Your task to perform on an android device: find photos in the google photos app Image 0: 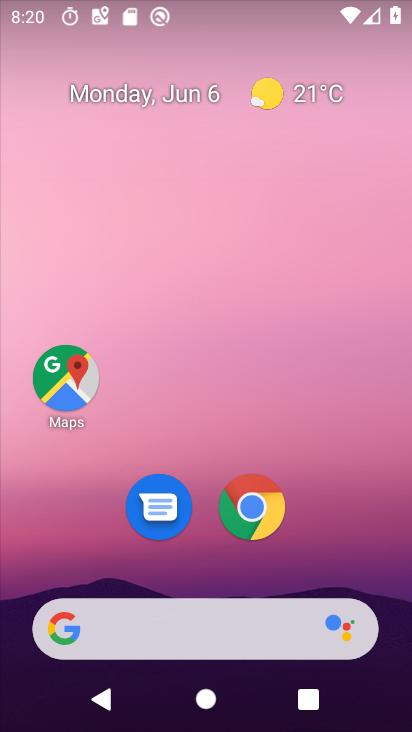
Step 0: drag from (334, 562) to (334, 134)
Your task to perform on an android device: find photos in the google photos app Image 1: 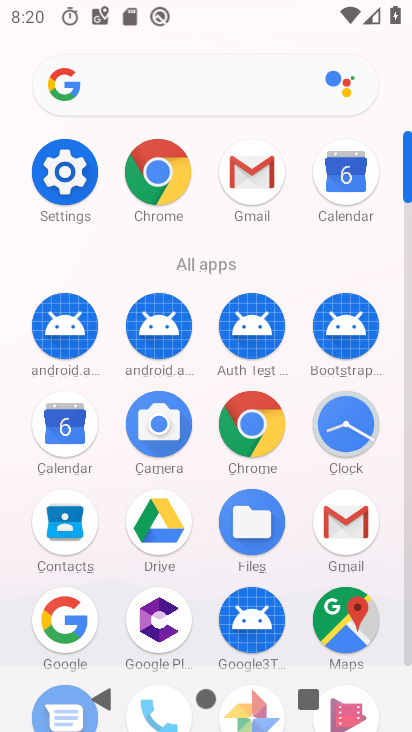
Step 1: drag from (199, 627) to (229, 220)
Your task to perform on an android device: find photos in the google photos app Image 2: 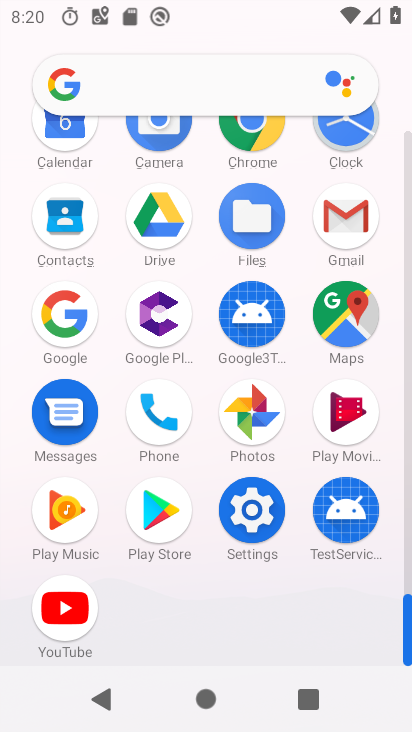
Step 2: click (226, 430)
Your task to perform on an android device: find photos in the google photos app Image 3: 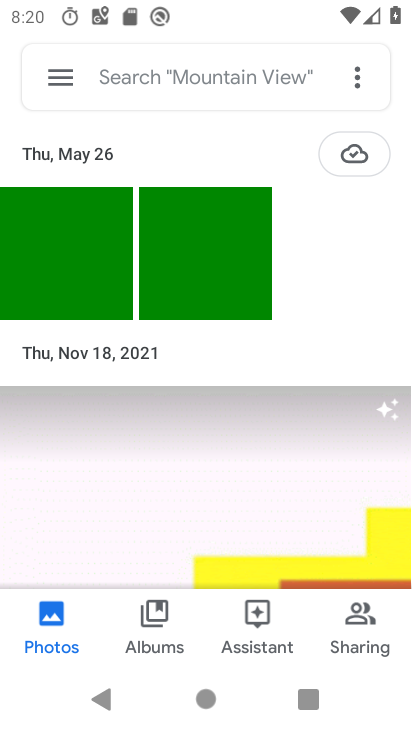
Step 3: task complete